Your task to perform on an android device: add a contact in the contacts app Image 0: 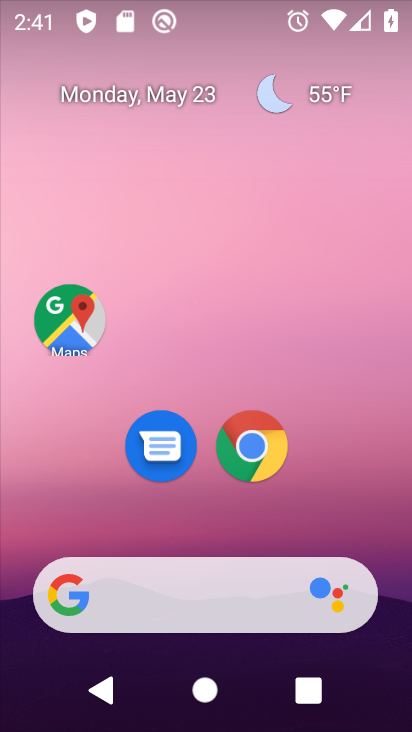
Step 0: drag from (214, 519) to (227, 144)
Your task to perform on an android device: add a contact in the contacts app Image 1: 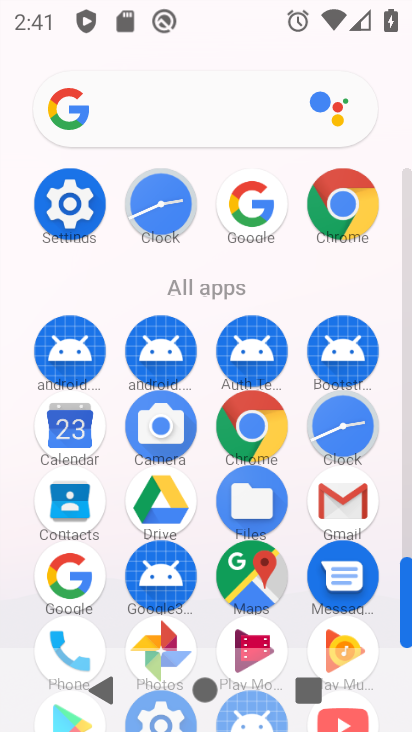
Step 1: drag from (192, 481) to (173, 307)
Your task to perform on an android device: add a contact in the contacts app Image 2: 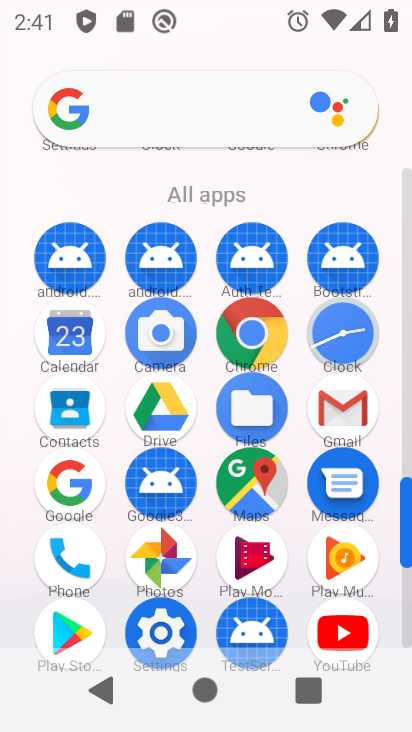
Step 2: click (81, 411)
Your task to perform on an android device: add a contact in the contacts app Image 3: 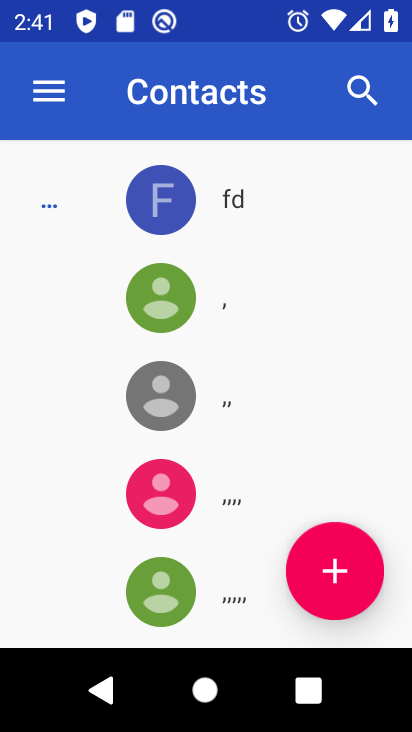
Step 3: click (319, 547)
Your task to perform on an android device: add a contact in the contacts app Image 4: 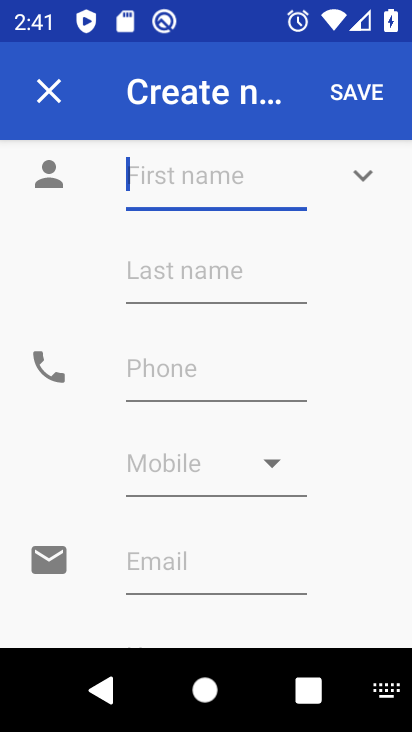
Step 4: type "vhjku"
Your task to perform on an android device: add a contact in the contacts app Image 5: 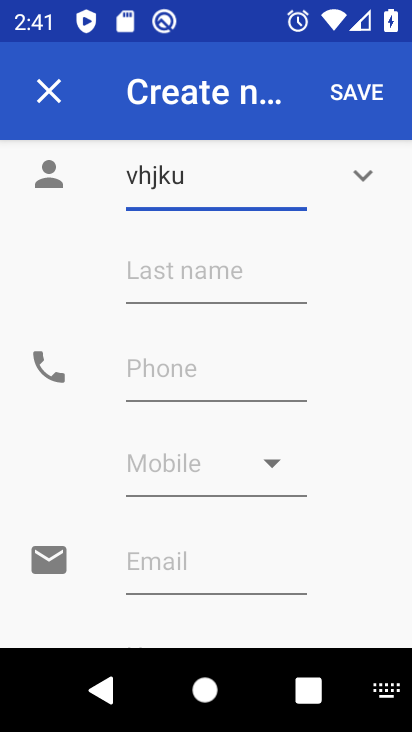
Step 5: click (209, 370)
Your task to perform on an android device: add a contact in the contacts app Image 6: 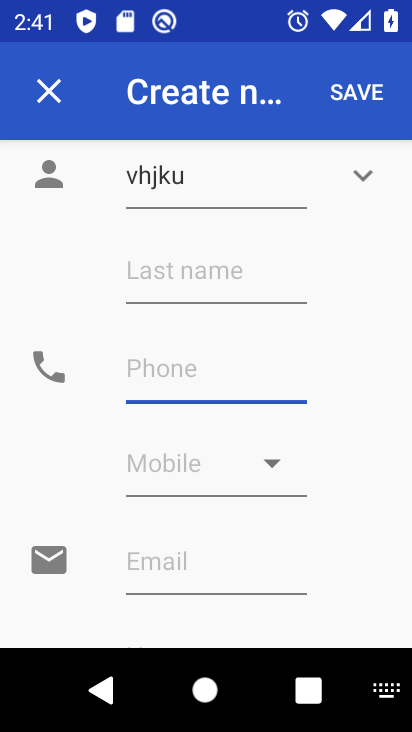
Step 6: type "888887757685"
Your task to perform on an android device: add a contact in the contacts app Image 7: 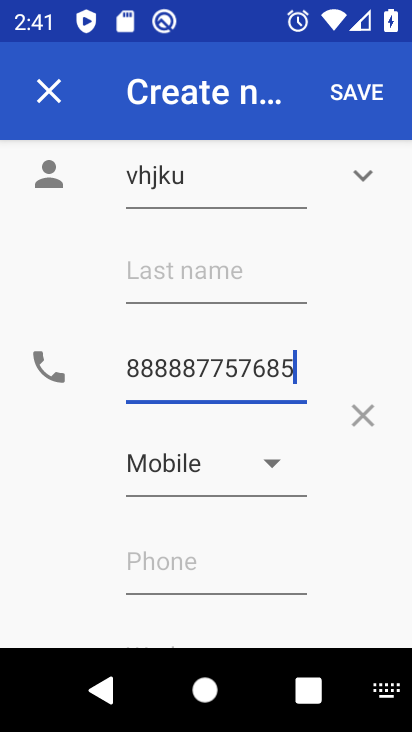
Step 7: click (338, 99)
Your task to perform on an android device: add a contact in the contacts app Image 8: 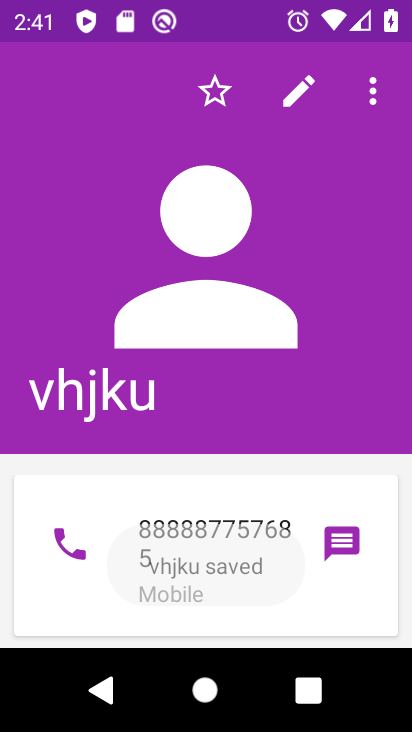
Step 8: task complete